Your task to perform on an android device: turn on wifi Image 0: 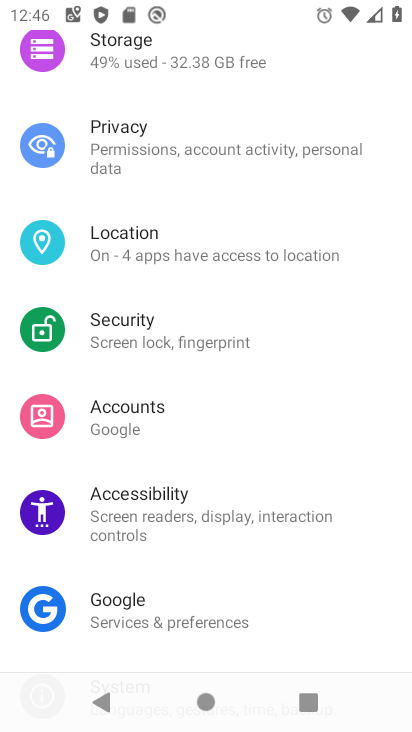
Step 0: drag from (373, 349) to (99, 684)
Your task to perform on an android device: turn on wifi Image 1: 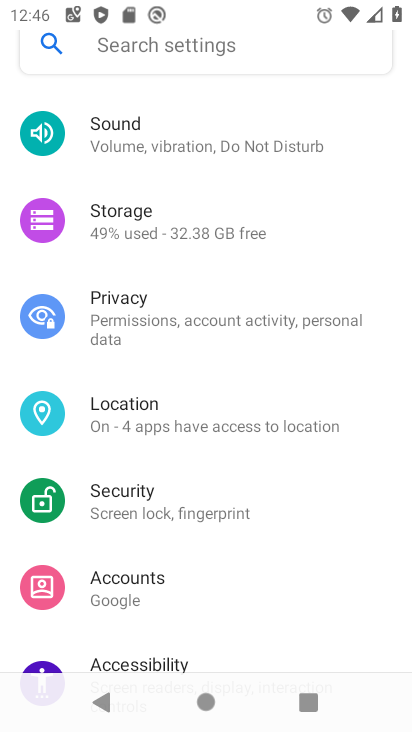
Step 1: drag from (103, 187) to (47, 641)
Your task to perform on an android device: turn on wifi Image 2: 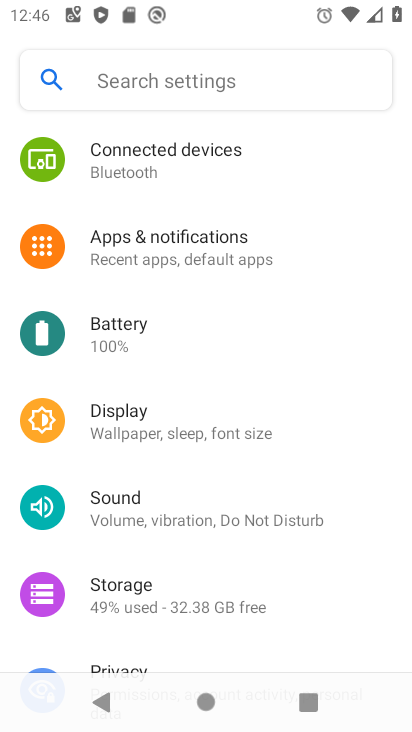
Step 2: drag from (154, 182) to (142, 361)
Your task to perform on an android device: turn on wifi Image 3: 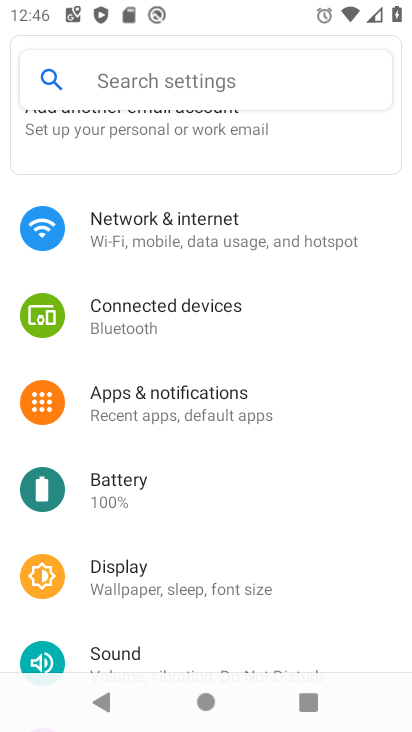
Step 3: click (258, 220)
Your task to perform on an android device: turn on wifi Image 4: 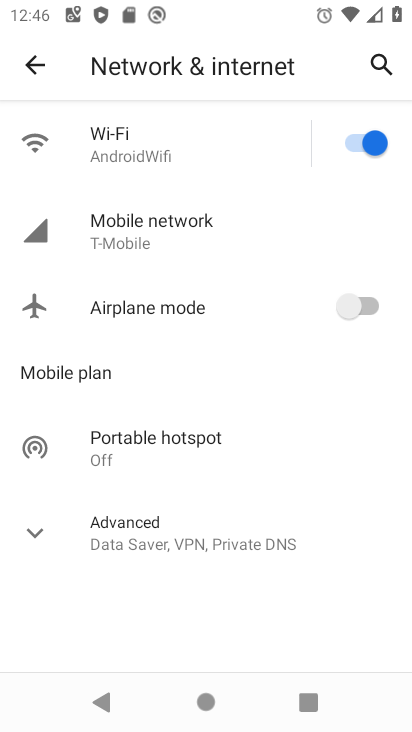
Step 4: click (246, 164)
Your task to perform on an android device: turn on wifi Image 5: 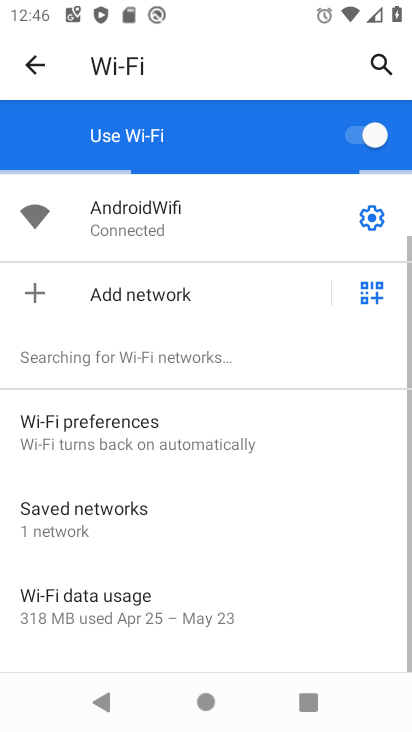
Step 5: click (246, 164)
Your task to perform on an android device: turn on wifi Image 6: 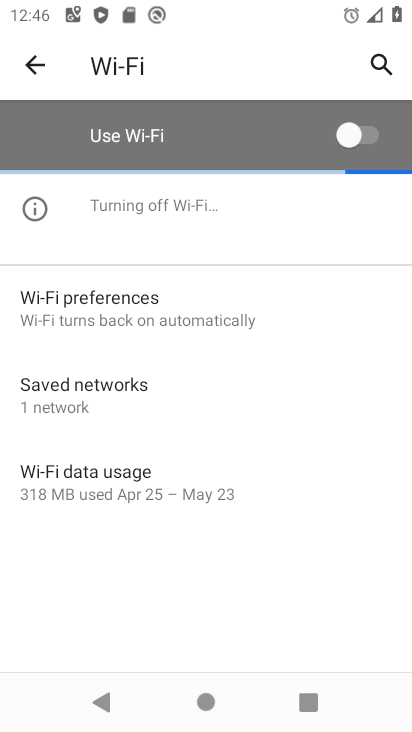
Step 6: task complete